Your task to perform on an android device: uninstall "DuckDuckGo Privacy Browser" Image 0: 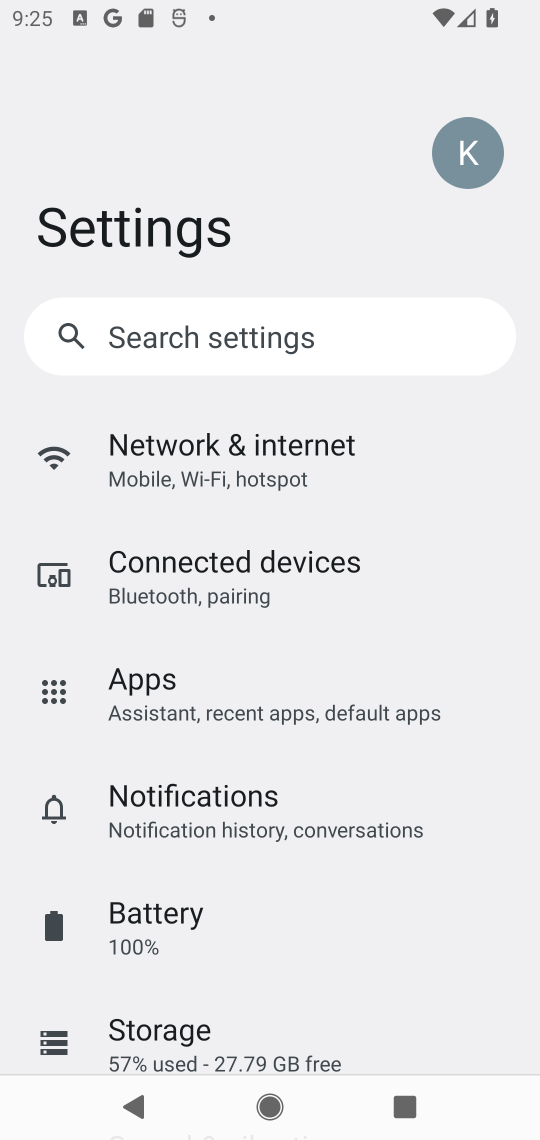
Step 0: press home button
Your task to perform on an android device: uninstall "DuckDuckGo Privacy Browser" Image 1: 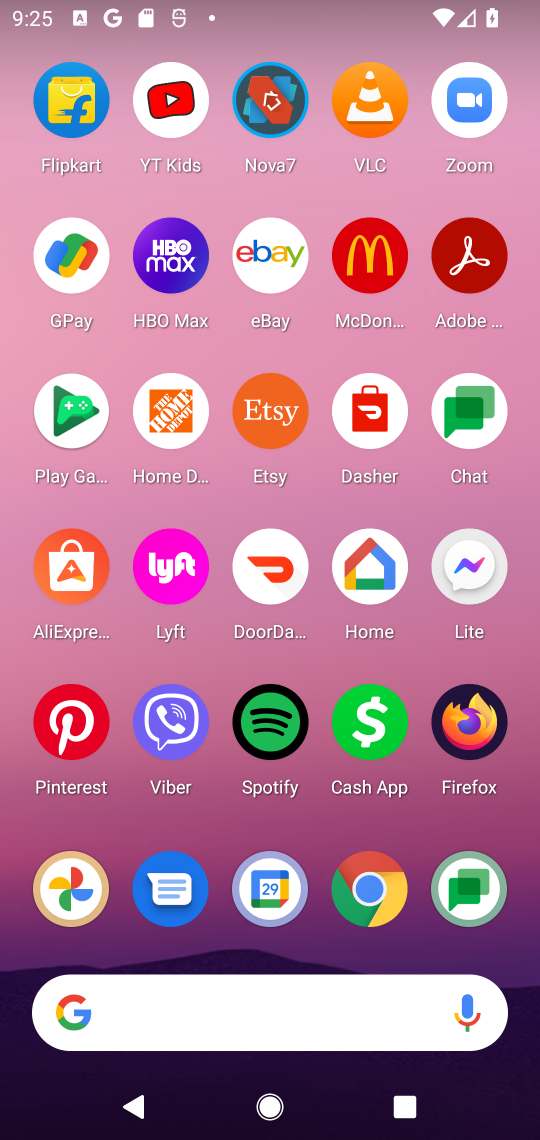
Step 1: press home button
Your task to perform on an android device: uninstall "DuckDuckGo Privacy Browser" Image 2: 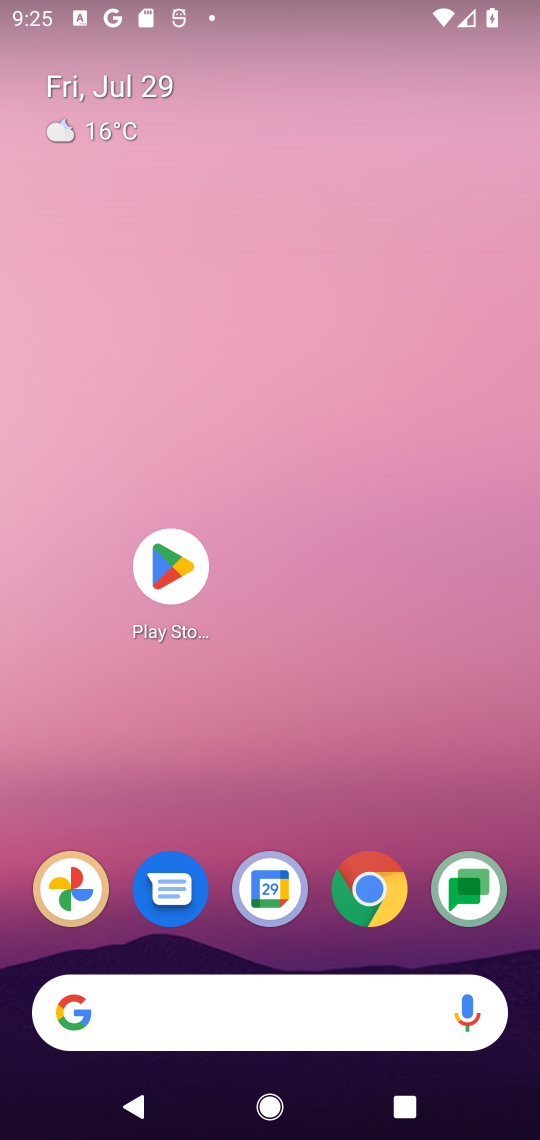
Step 2: click (181, 563)
Your task to perform on an android device: uninstall "DuckDuckGo Privacy Browser" Image 3: 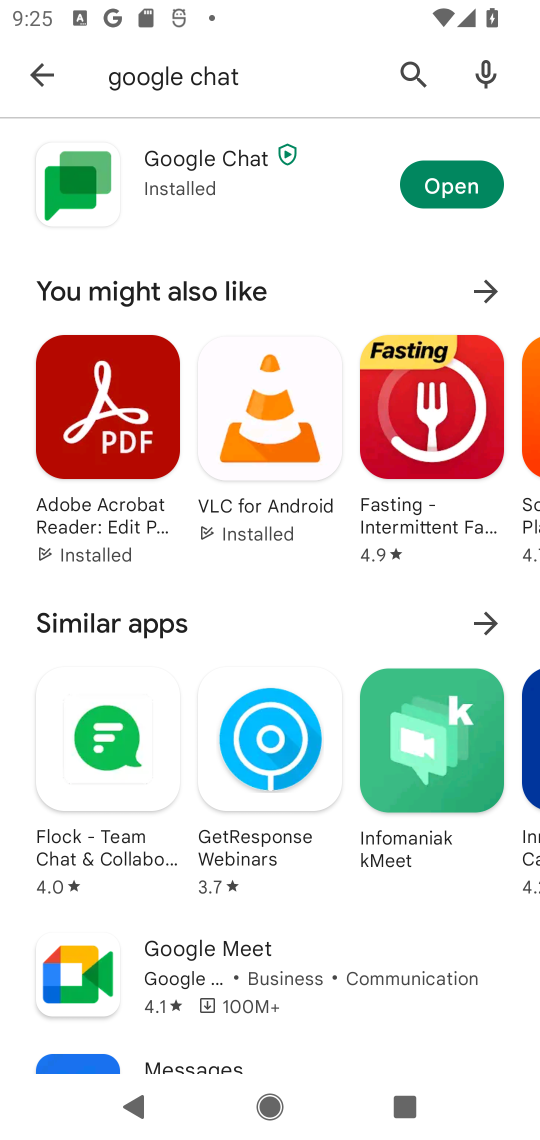
Step 3: click (414, 63)
Your task to perform on an android device: uninstall "DuckDuckGo Privacy Browser" Image 4: 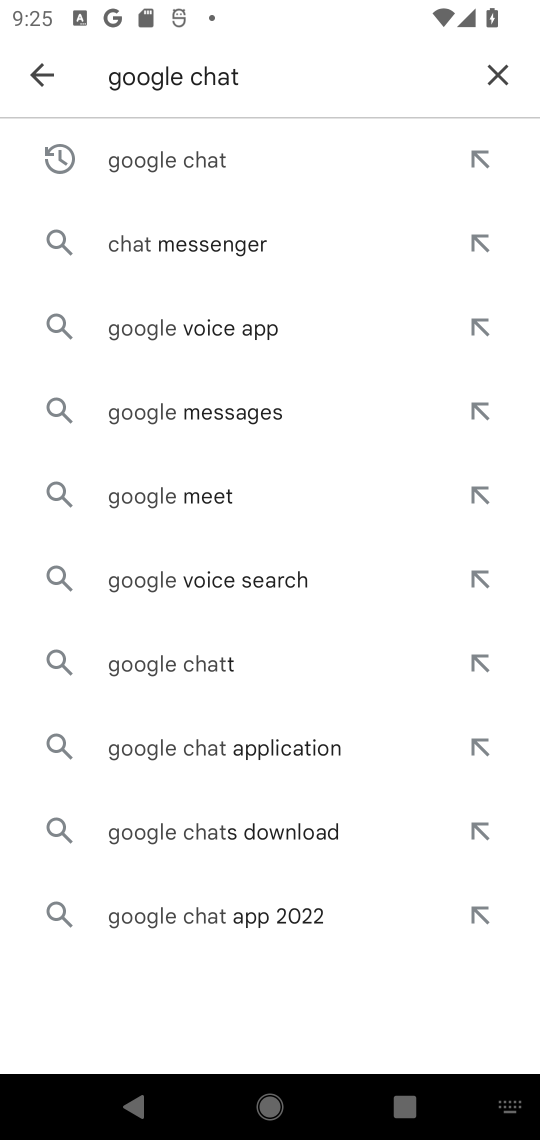
Step 4: click (505, 75)
Your task to perform on an android device: uninstall "DuckDuckGo Privacy Browser" Image 5: 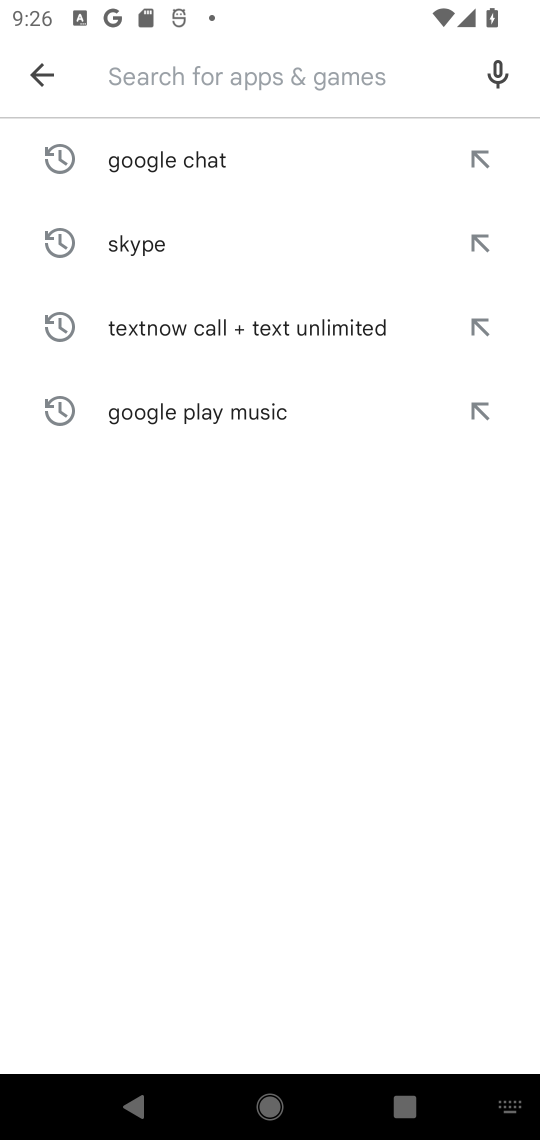
Step 5: type "DuckDuckGo Privacy Browser"
Your task to perform on an android device: uninstall "DuckDuckGo Privacy Browser" Image 6: 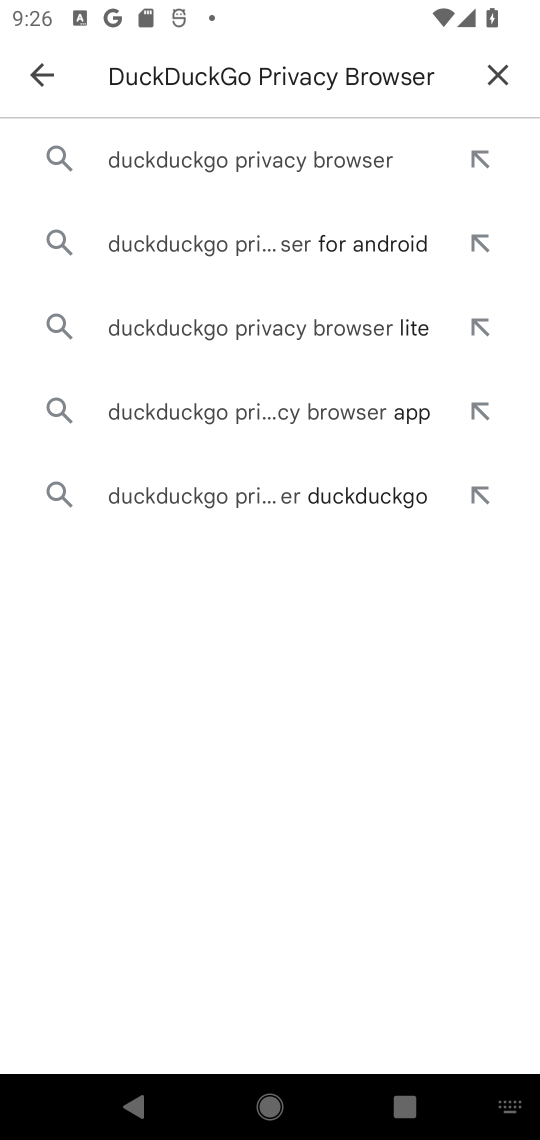
Step 6: click (314, 159)
Your task to perform on an android device: uninstall "DuckDuckGo Privacy Browser" Image 7: 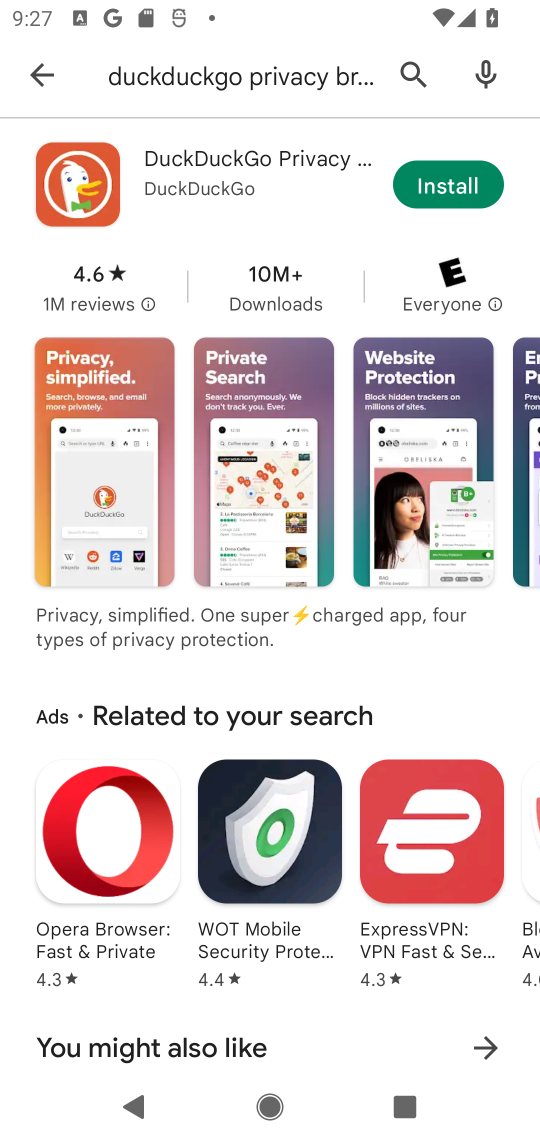
Step 7: task complete